Your task to perform on an android device: turn smart compose on in the gmail app Image 0: 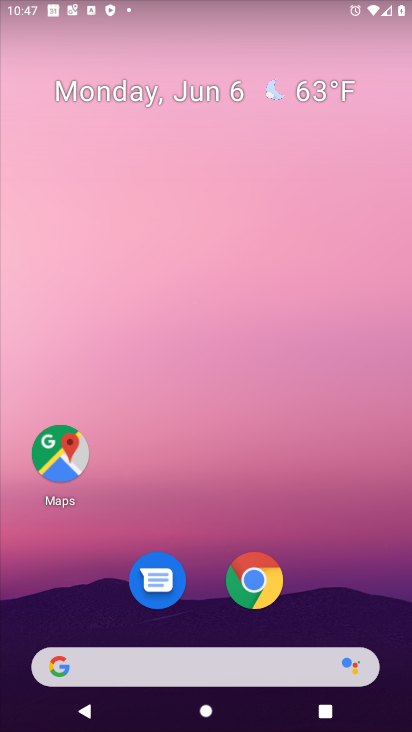
Step 0: drag from (313, 598) to (277, 57)
Your task to perform on an android device: turn smart compose on in the gmail app Image 1: 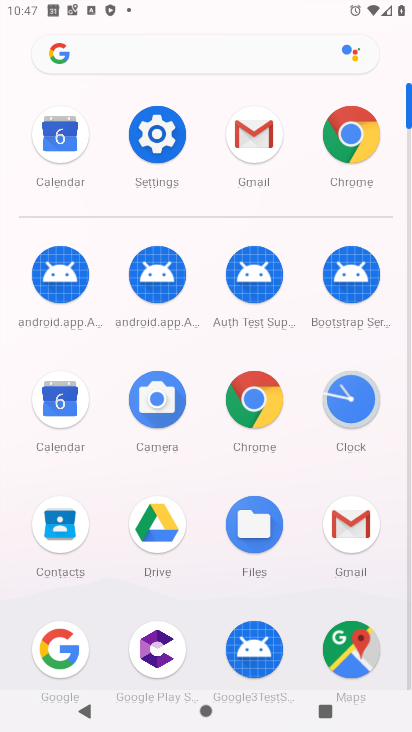
Step 1: click (259, 162)
Your task to perform on an android device: turn smart compose on in the gmail app Image 2: 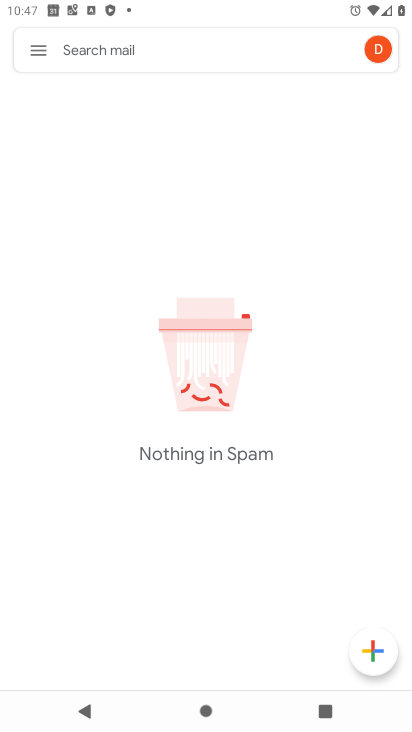
Step 2: click (48, 56)
Your task to perform on an android device: turn smart compose on in the gmail app Image 3: 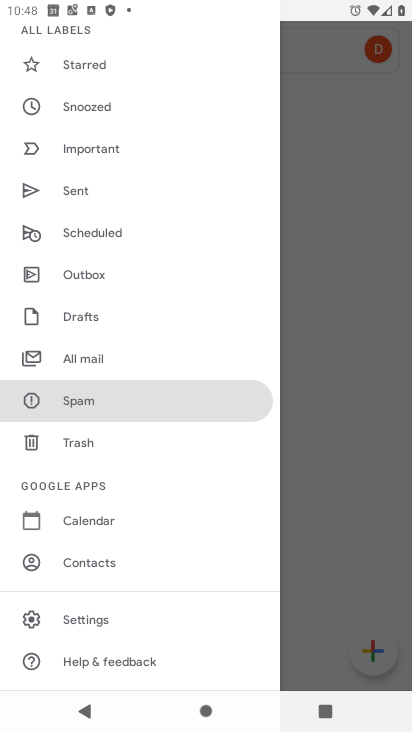
Step 3: drag from (118, 597) to (166, 89)
Your task to perform on an android device: turn smart compose on in the gmail app Image 4: 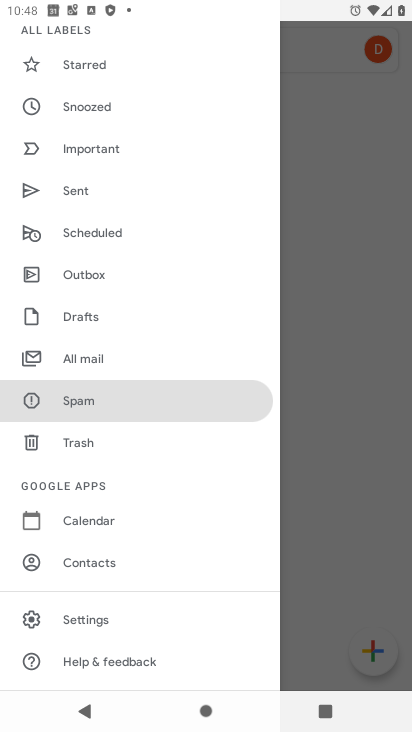
Step 4: click (97, 612)
Your task to perform on an android device: turn smart compose on in the gmail app Image 5: 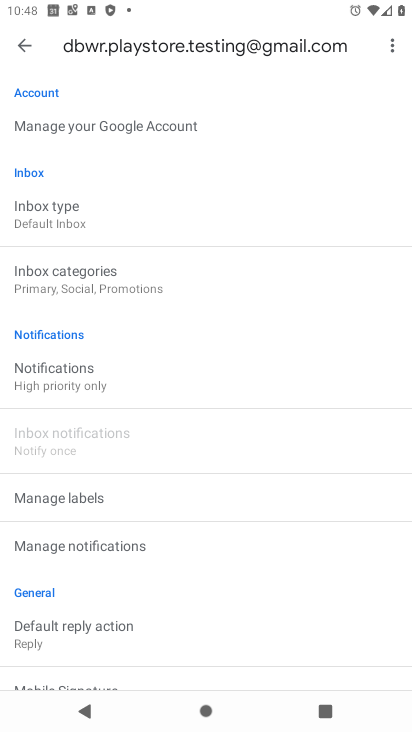
Step 5: task complete